Your task to perform on an android device: Open network settings Image 0: 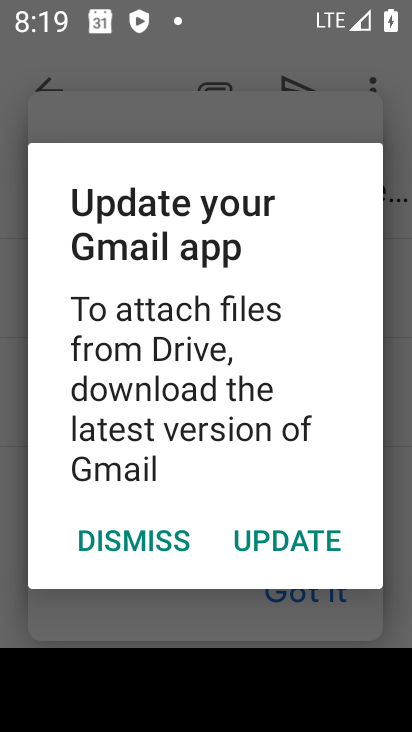
Step 0: press home button
Your task to perform on an android device: Open network settings Image 1: 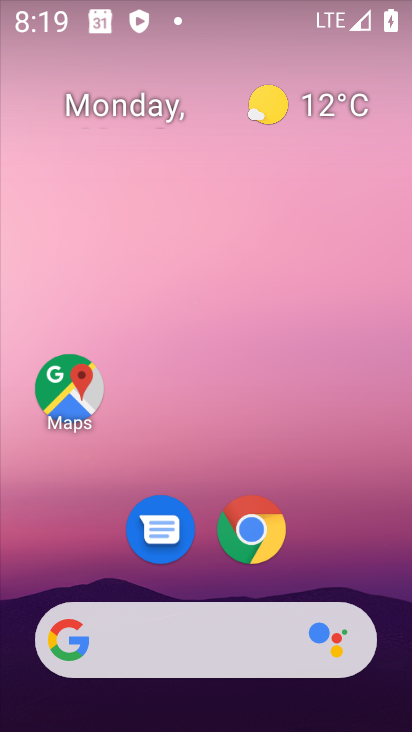
Step 1: drag from (208, 635) to (185, 126)
Your task to perform on an android device: Open network settings Image 2: 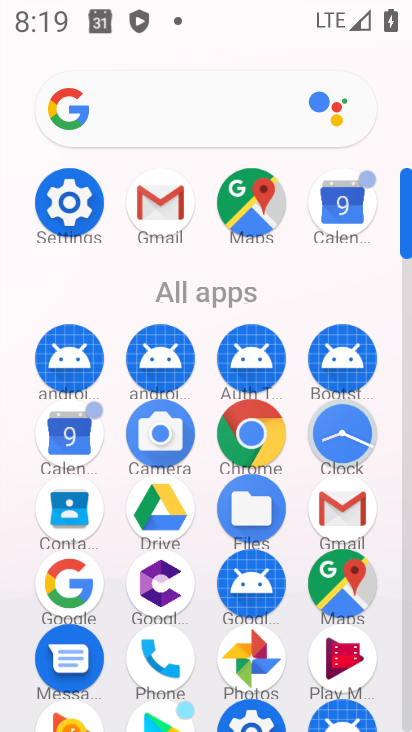
Step 2: click (59, 206)
Your task to perform on an android device: Open network settings Image 3: 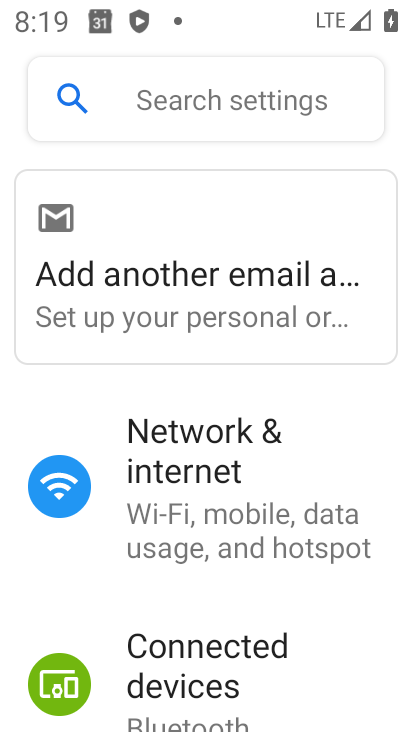
Step 3: click (237, 482)
Your task to perform on an android device: Open network settings Image 4: 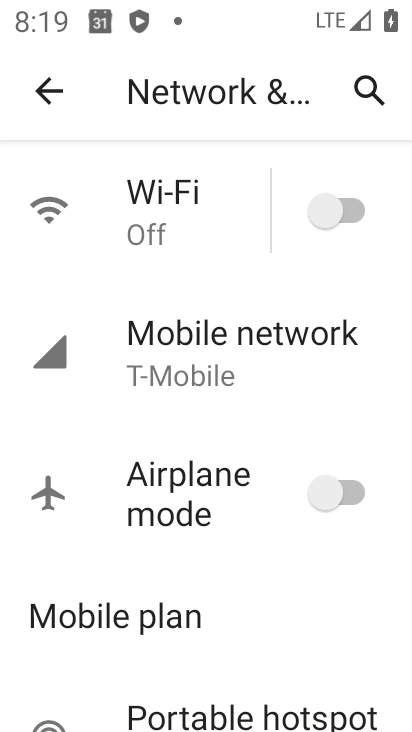
Step 4: task complete